Your task to perform on an android device: Go to accessibility settings Image 0: 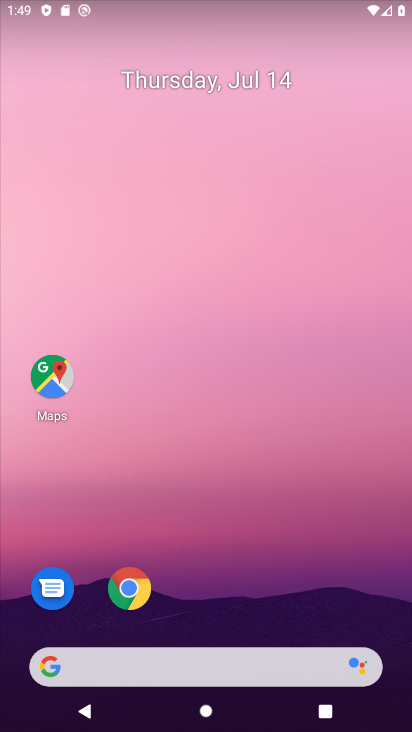
Step 0: drag from (262, 711) to (256, 4)
Your task to perform on an android device: Go to accessibility settings Image 1: 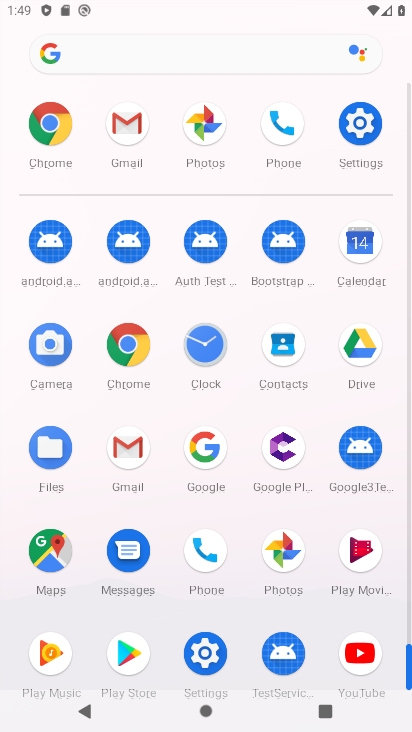
Step 1: click (349, 123)
Your task to perform on an android device: Go to accessibility settings Image 2: 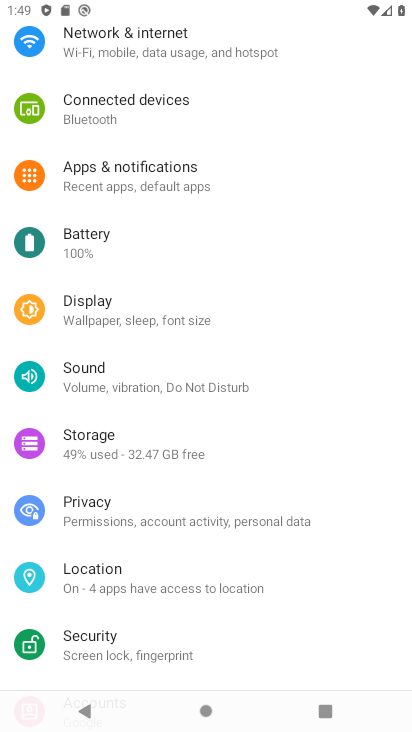
Step 2: drag from (225, 617) to (182, 62)
Your task to perform on an android device: Go to accessibility settings Image 3: 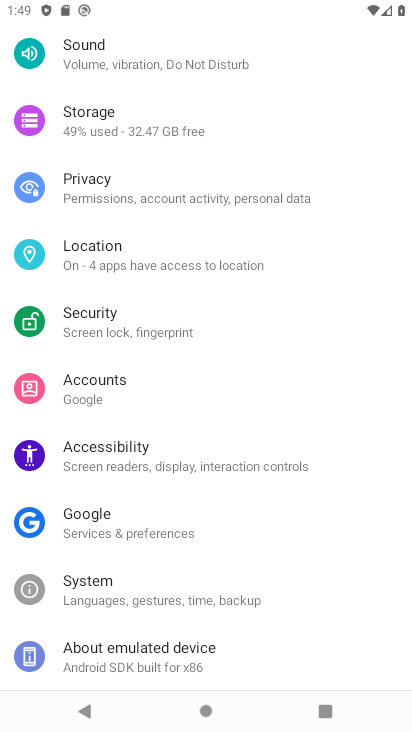
Step 3: click (217, 463)
Your task to perform on an android device: Go to accessibility settings Image 4: 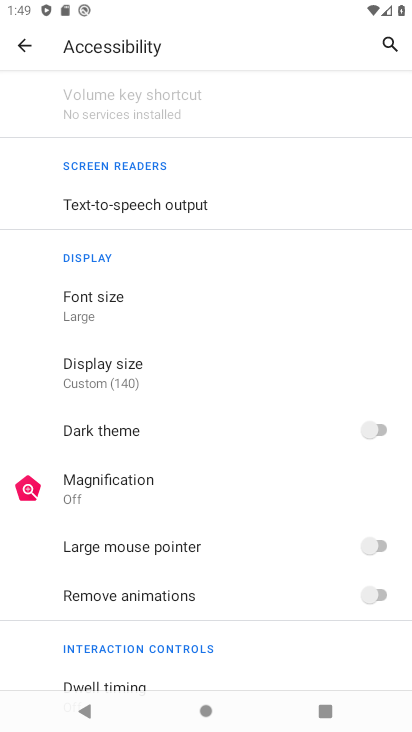
Step 4: task complete